Your task to perform on an android device: Go to Google Image 0: 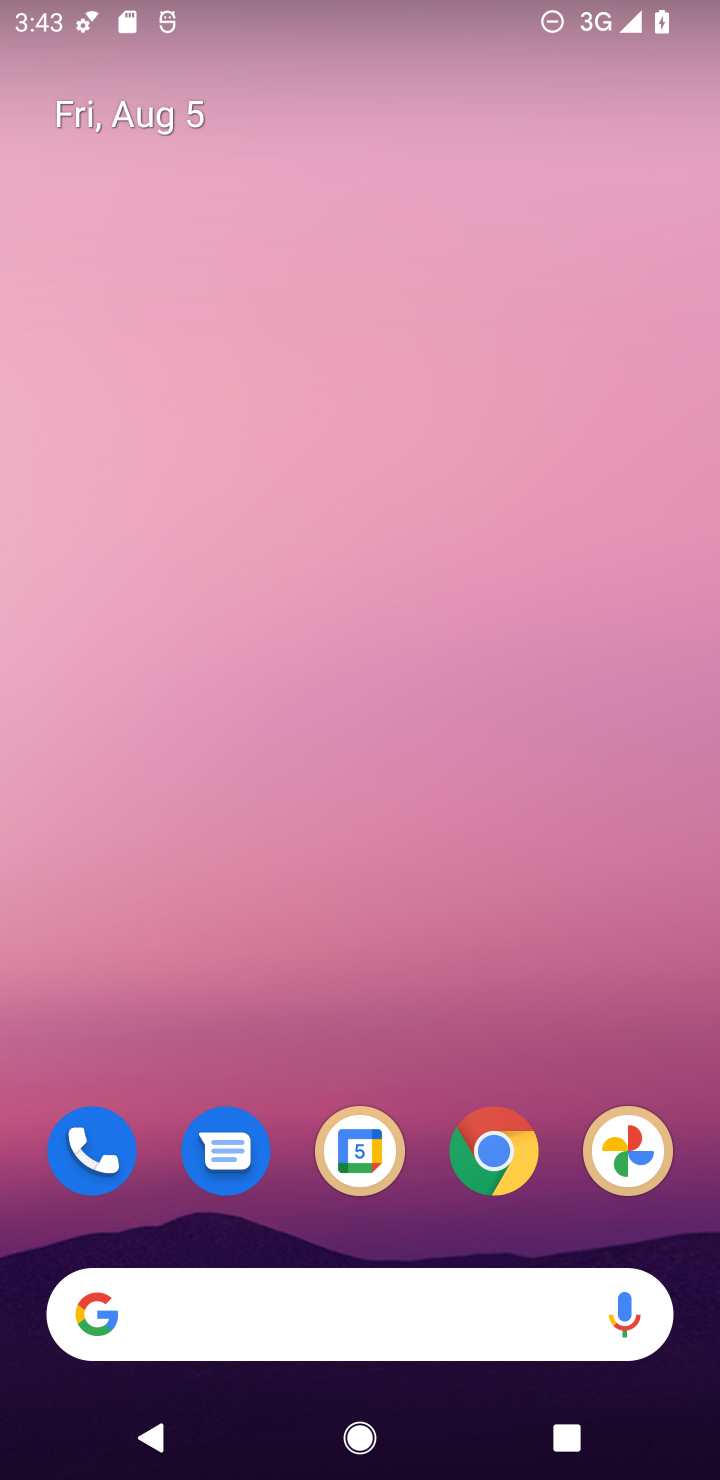
Step 0: drag from (384, 1068) to (265, 52)
Your task to perform on an android device: Go to Google Image 1: 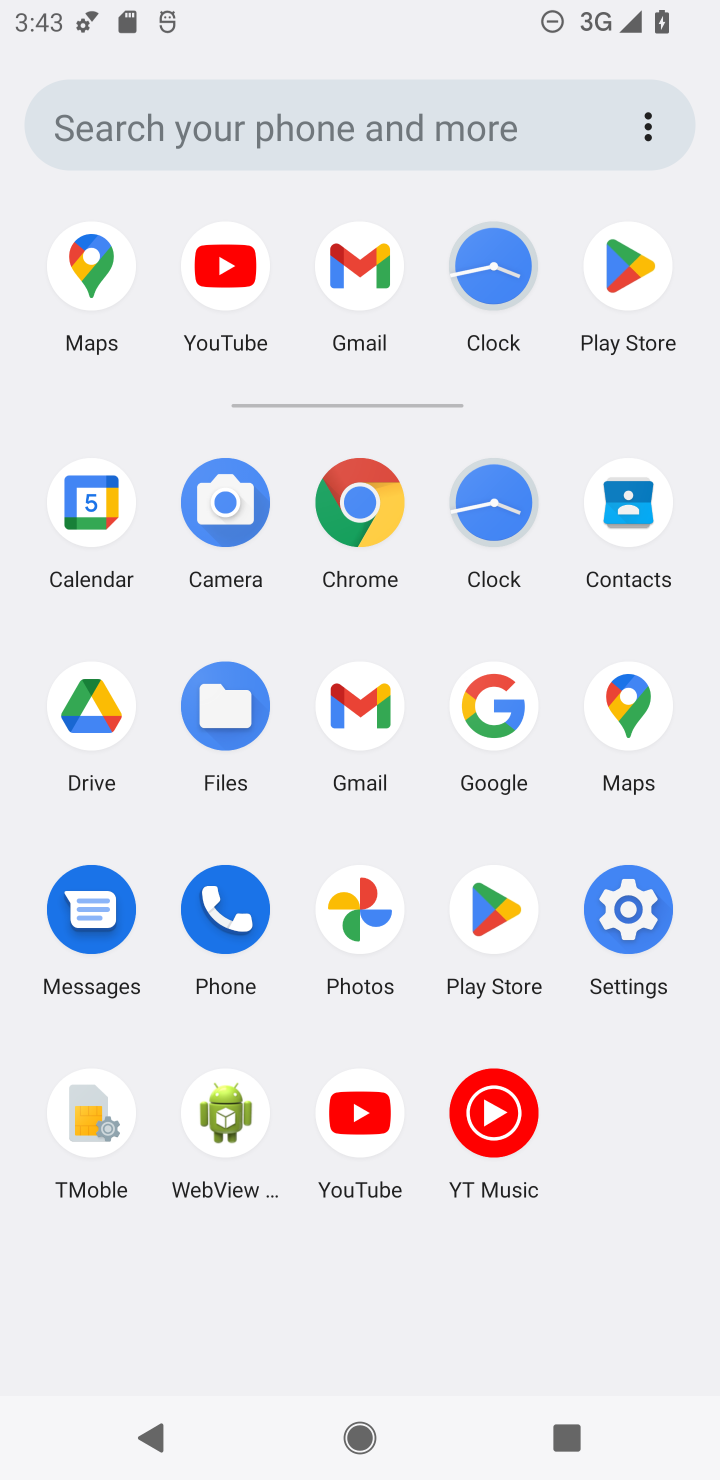
Step 1: click (500, 738)
Your task to perform on an android device: Go to Google Image 2: 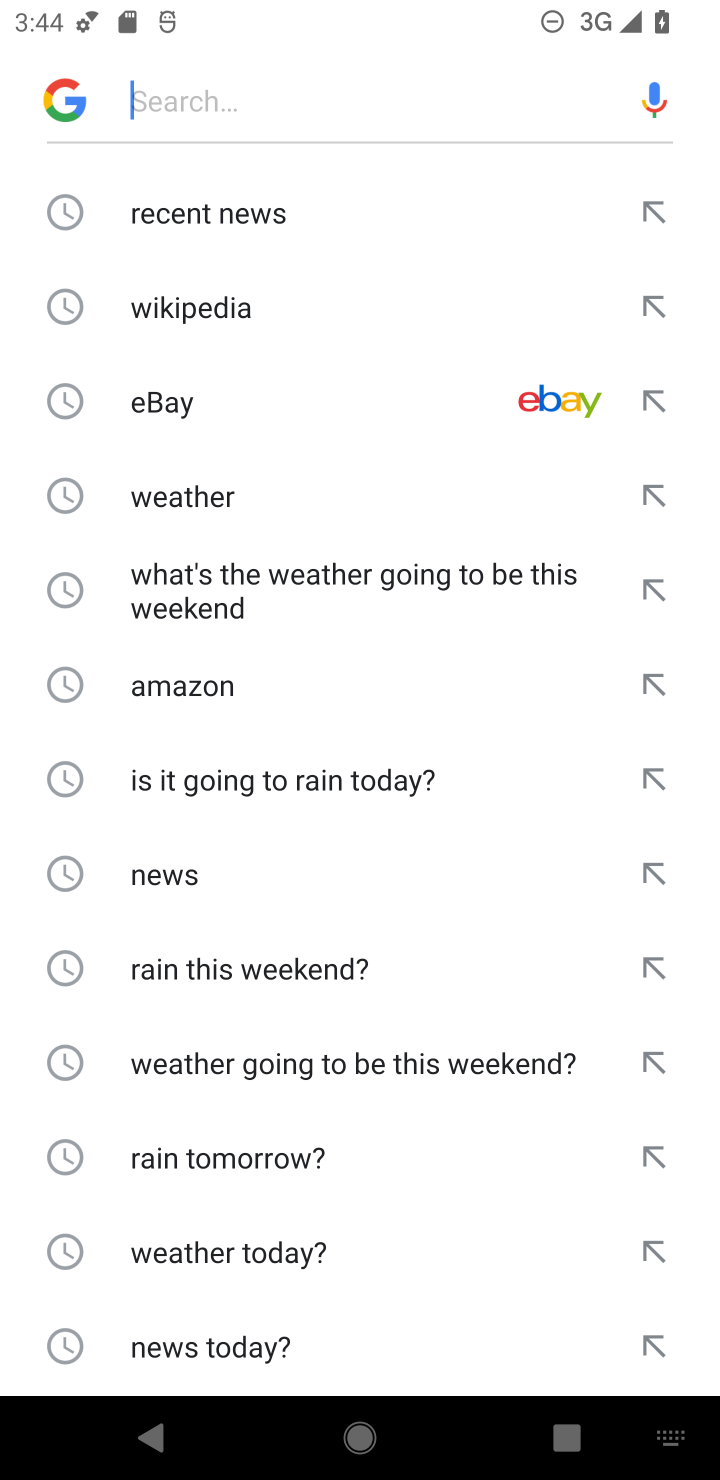
Step 2: task complete